Your task to perform on an android device: Open ESPN.com Image 0: 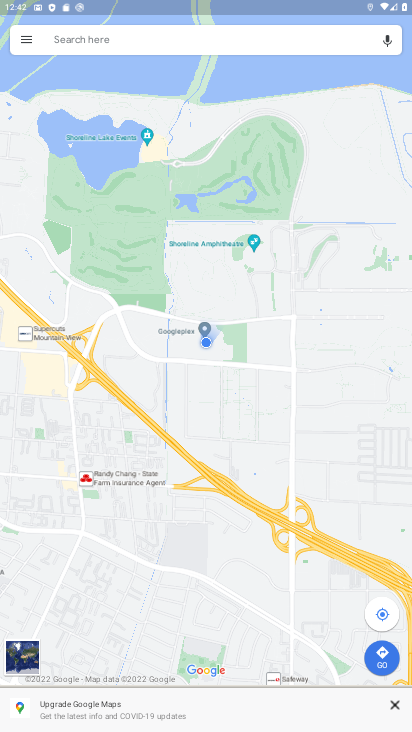
Step 0: press home button
Your task to perform on an android device: Open ESPN.com Image 1: 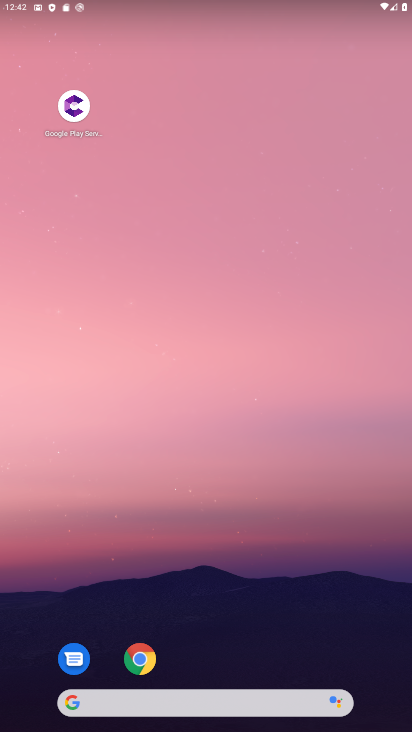
Step 1: click (143, 647)
Your task to perform on an android device: Open ESPN.com Image 2: 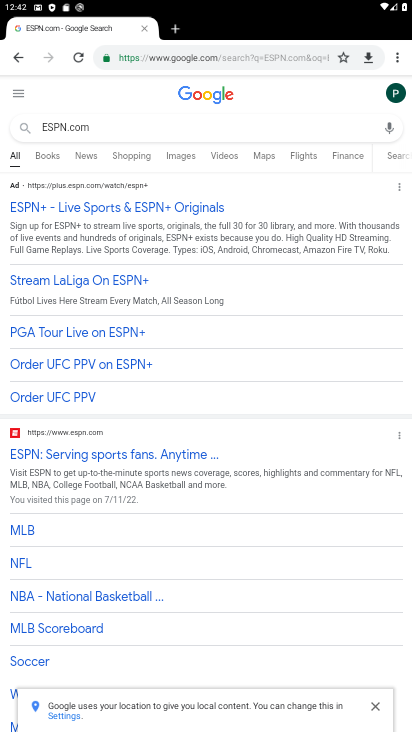
Step 2: click (81, 206)
Your task to perform on an android device: Open ESPN.com Image 3: 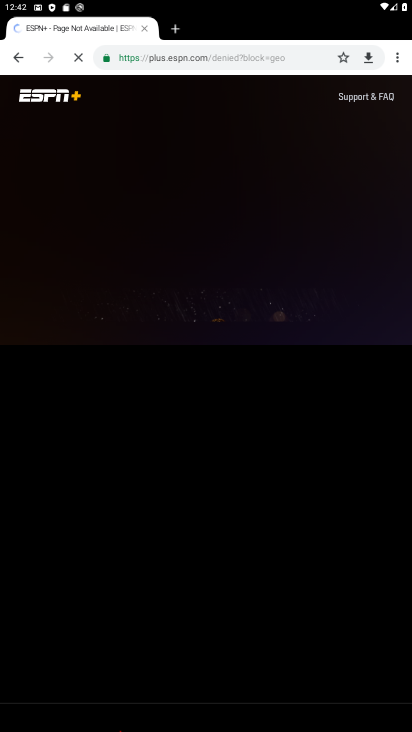
Step 3: task complete